Your task to perform on an android device: Search for sushi restaurants on Maps Image 0: 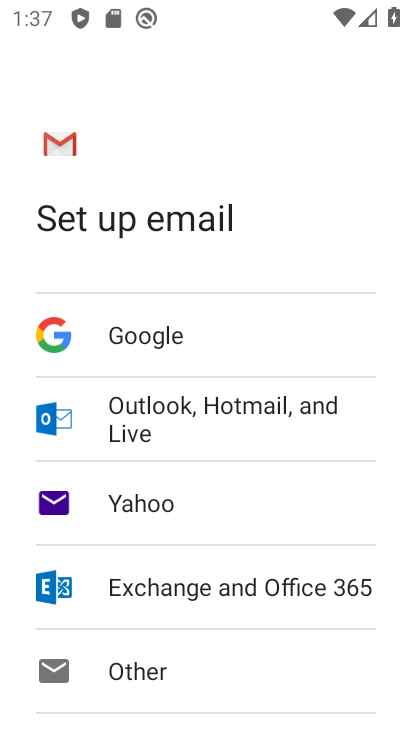
Step 0: press home button
Your task to perform on an android device: Search for sushi restaurants on Maps Image 1: 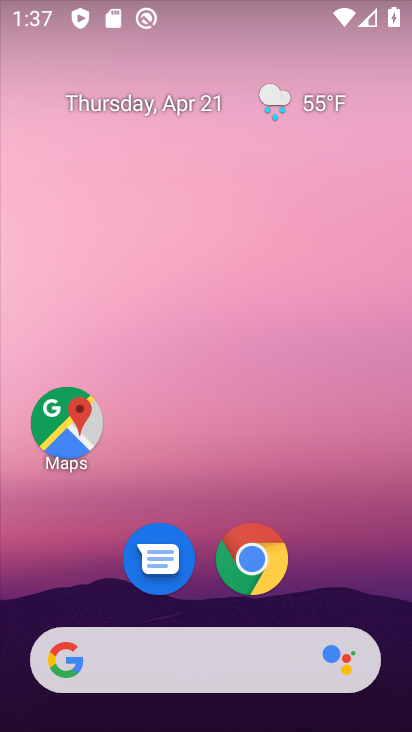
Step 1: drag from (253, 702) to (235, 180)
Your task to perform on an android device: Search for sushi restaurants on Maps Image 2: 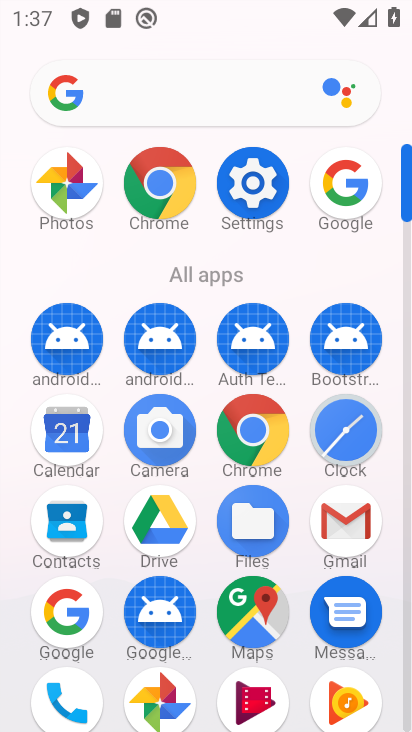
Step 2: click (244, 629)
Your task to perform on an android device: Search for sushi restaurants on Maps Image 3: 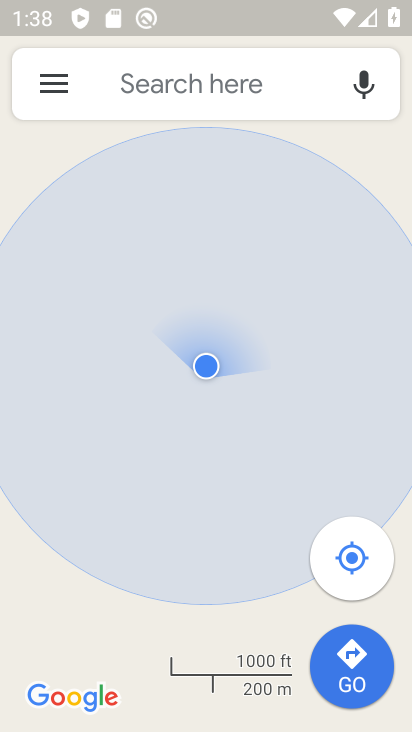
Step 3: click (215, 84)
Your task to perform on an android device: Search for sushi restaurants on Maps Image 4: 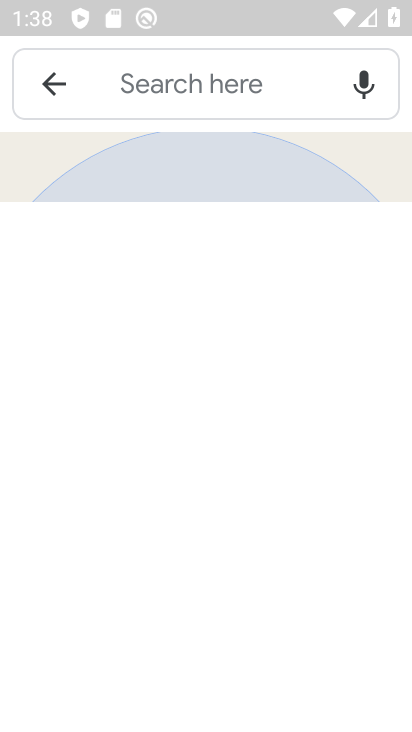
Step 4: click (185, 90)
Your task to perform on an android device: Search for sushi restaurants on Maps Image 5: 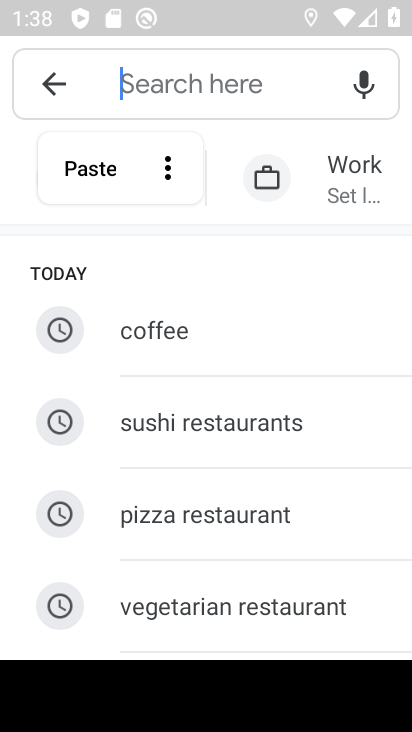
Step 5: type "sushi restauran"
Your task to perform on an android device: Search for sushi restaurants on Maps Image 6: 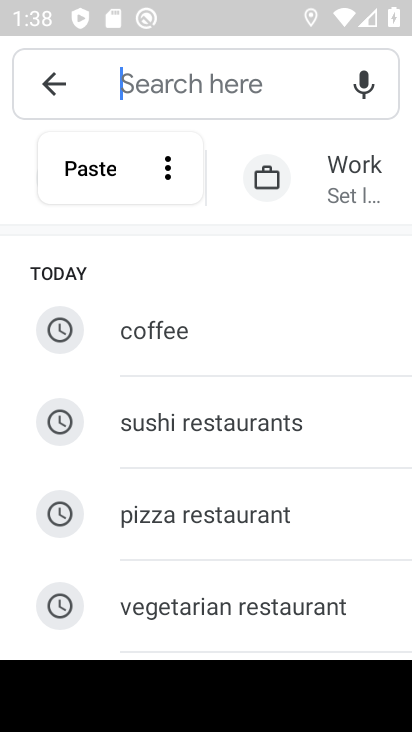
Step 6: click (316, 427)
Your task to perform on an android device: Search for sushi restaurants on Maps Image 7: 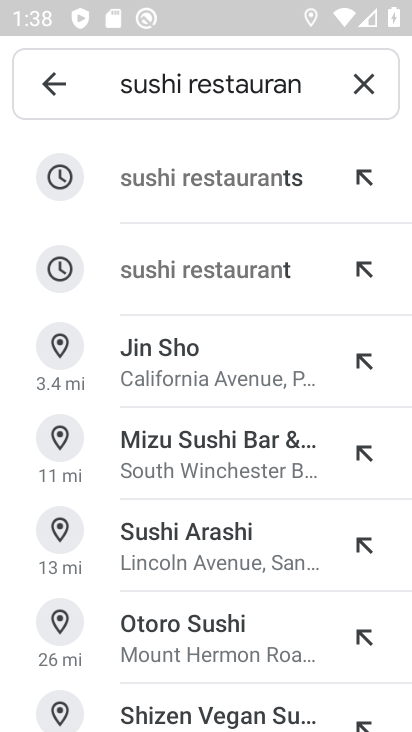
Step 7: click (246, 187)
Your task to perform on an android device: Search for sushi restaurants on Maps Image 8: 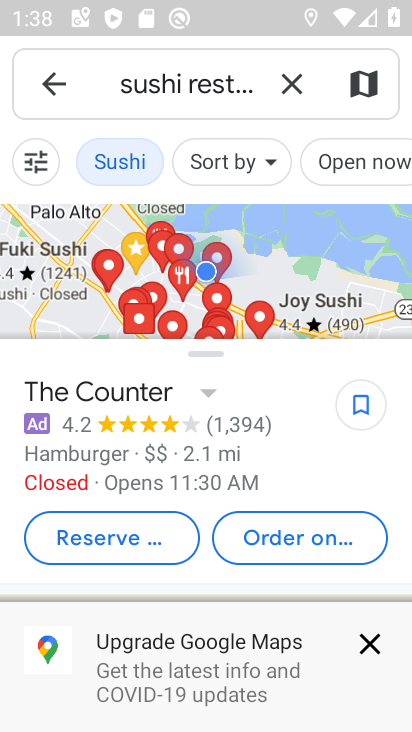
Step 8: task complete